Your task to perform on an android device: Go to display settings Image 0: 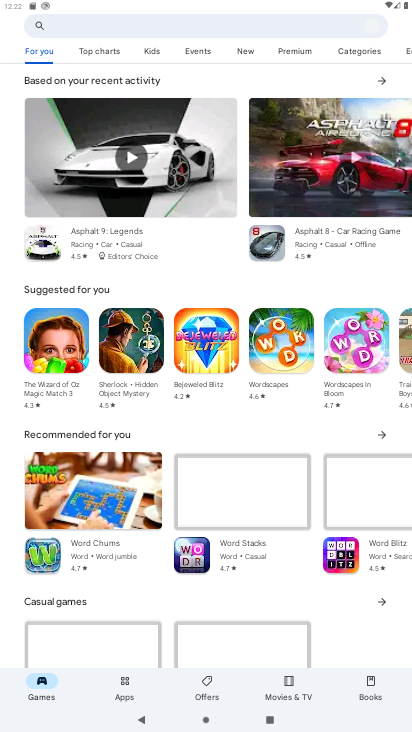
Step 0: press back button
Your task to perform on an android device: Go to display settings Image 1: 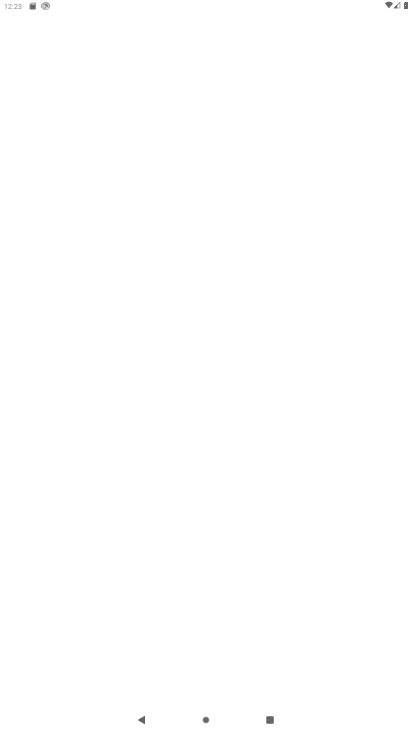
Step 1: press home button
Your task to perform on an android device: Go to display settings Image 2: 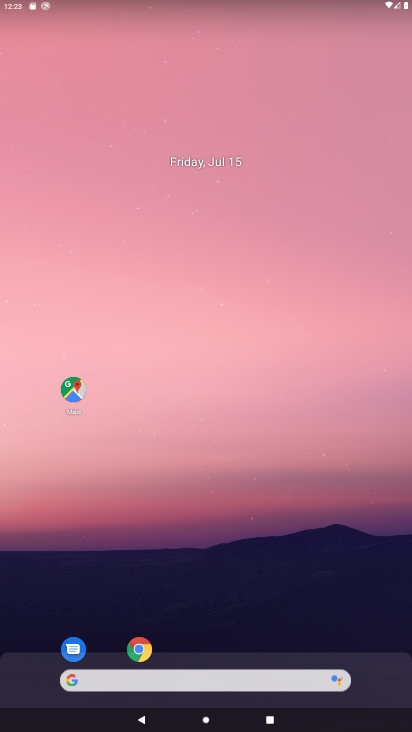
Step 2: drag from (205, 624) to (191, 168)
Your task to perform on an android device: Go to display settings Image 3: 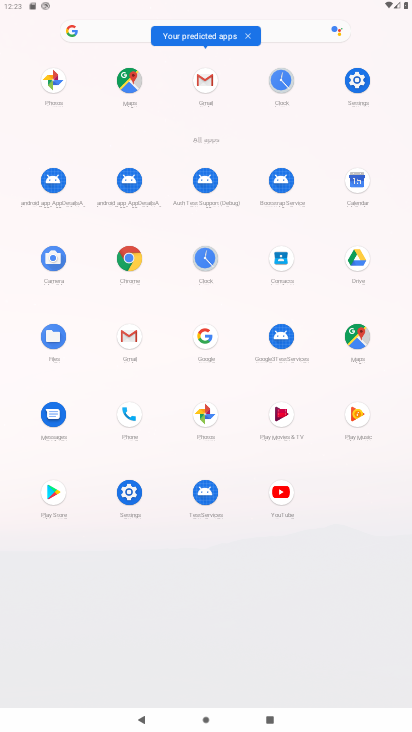
Step 3: click (122, 492)
Your task to perform on an android device: Go to display settings Image 4: 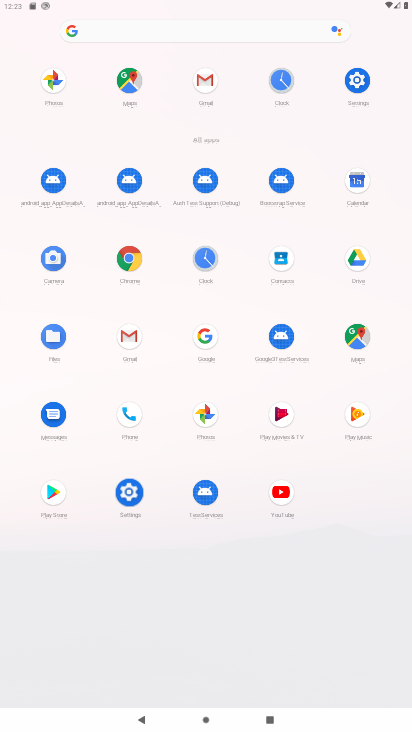
Step 4: click (126, 490)
Your task to perform on an android device: Go to display settings Image 5: 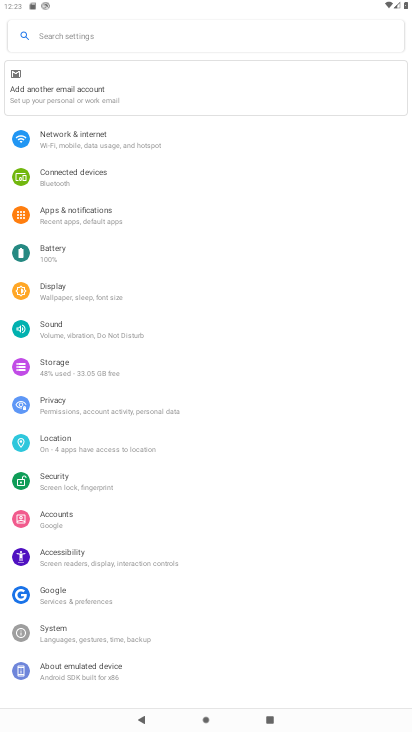
Step 5: click (47, 283)
Your task to perform on an android device: Go to display settings Image 6: 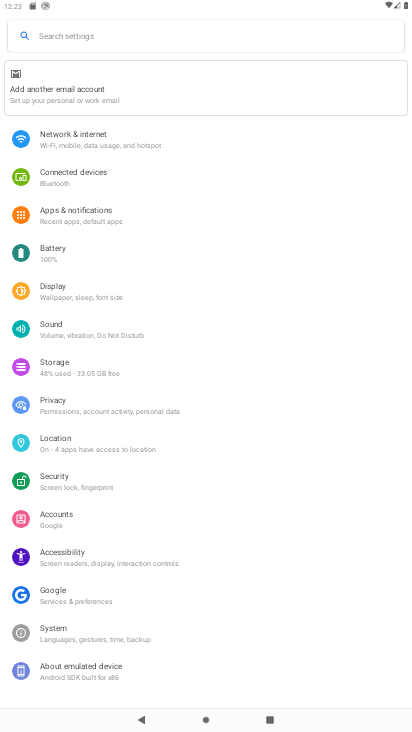
Step 6: click (48, 283)
Your task to perform on an android device: Go to display settings Image 7: 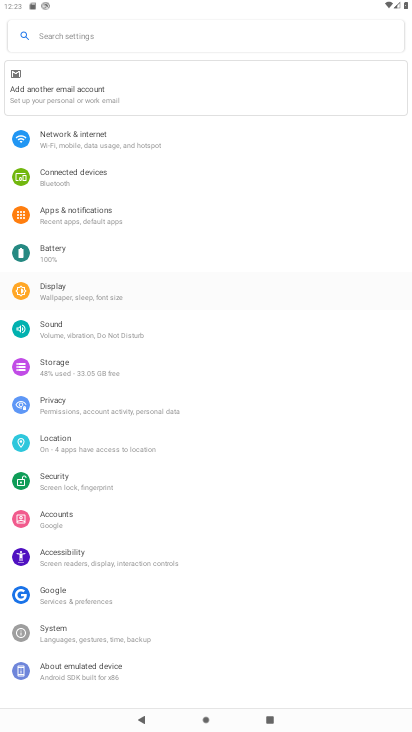
Step 7: click (52, 297)
Your task to perform on an android device: Go to display settings Image 8: 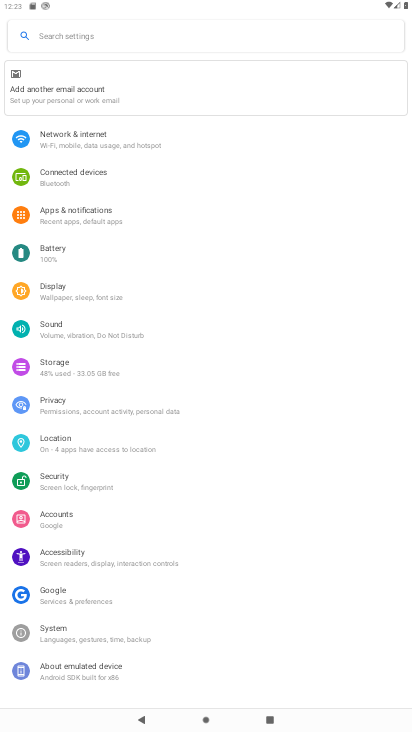
Step 8: click (53, 296)
Your task to perform on an android device: Go to display settings Image 9: 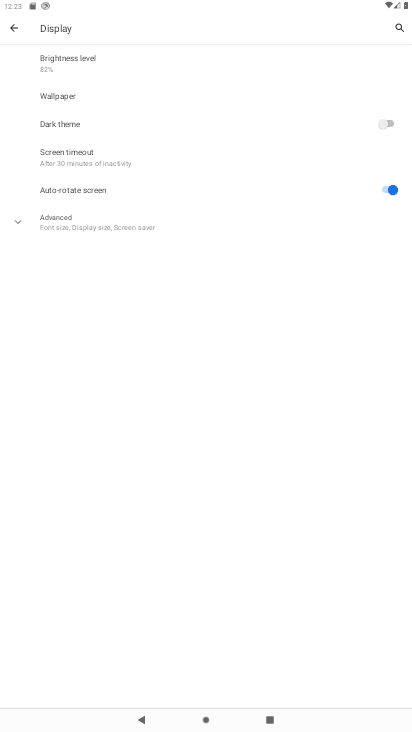
Step 9: click (54, 295)
Your task to perform on an android device: Go to display settings Image 10: 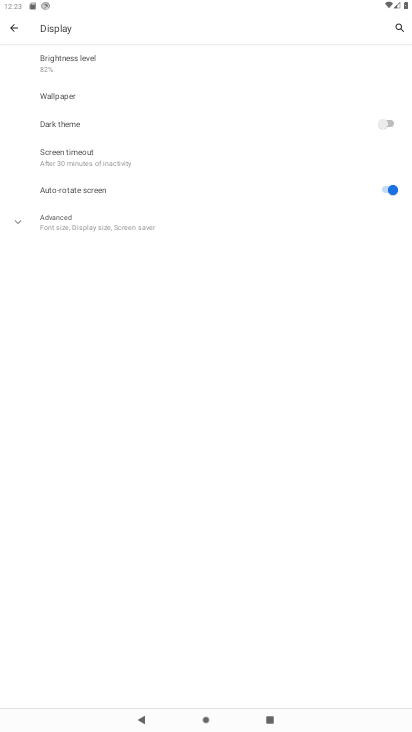
Step 10: task complete